Your task to perform on an android device: see sites visited before in the chrome app Image 0: 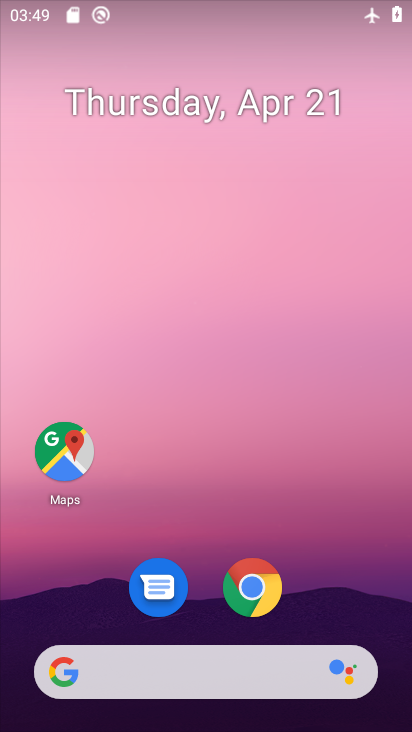
Step 0: drag from (347, 604) to (358, 143)
Your task to perform on an android device: see sites visited before in the chrome app Image 1: 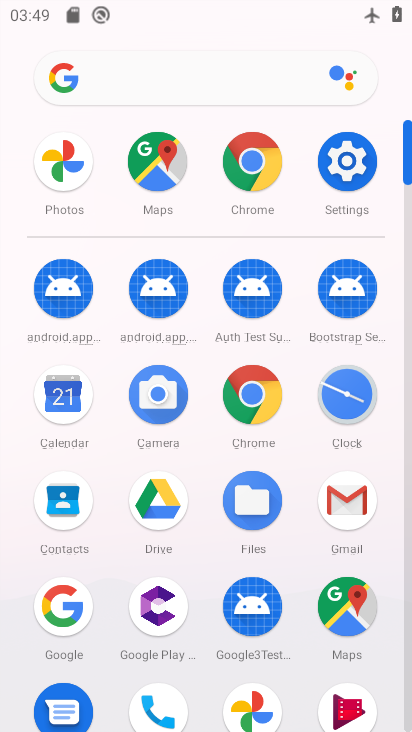
Step 1: click (257, 422)
Your task to perform on an android device: see sites visited before in the chrome app Image 2: 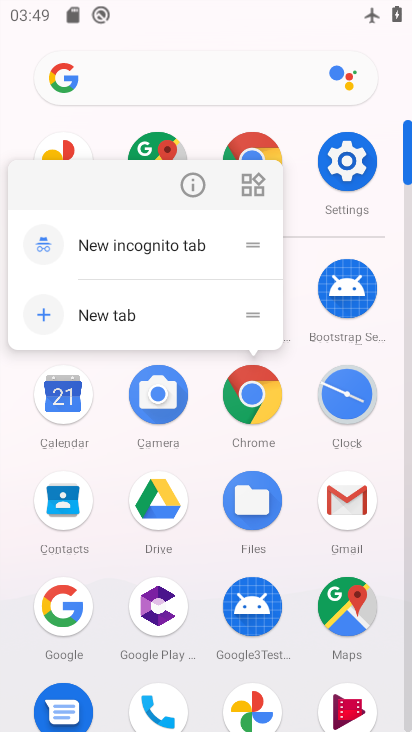
Step 2: click (257, 422)
Your task to perform on an android device: see sites visited before in the chrome app Image 3: 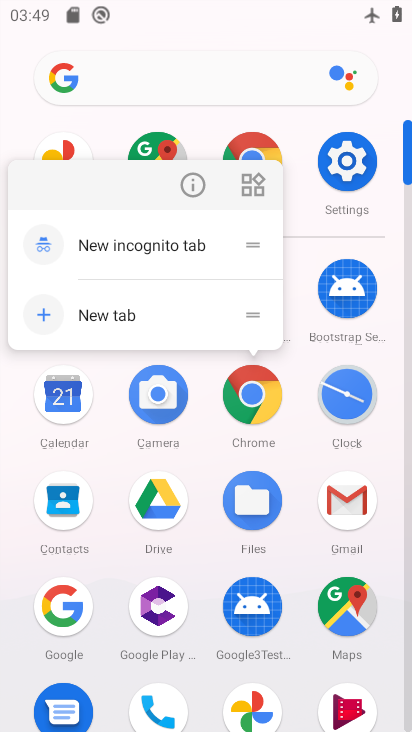
Step 3: click (257, 422)
Your task to perform on an android device: see sites visited before in the chrome app Image 4: 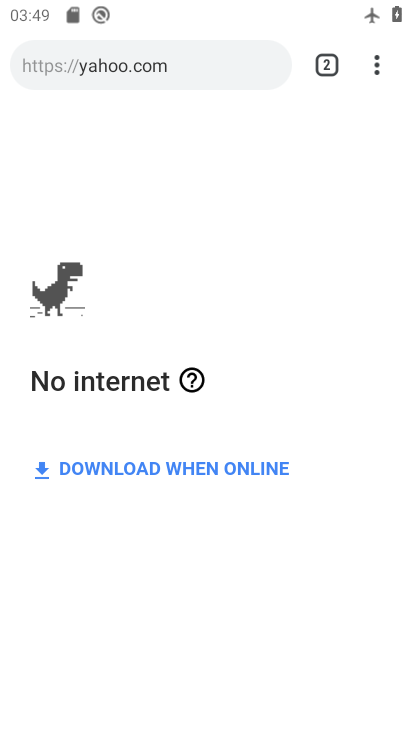
Step 4: click (375, 69)
Your task to perform on an android device: see sites visited before in the chrome app Image 5: 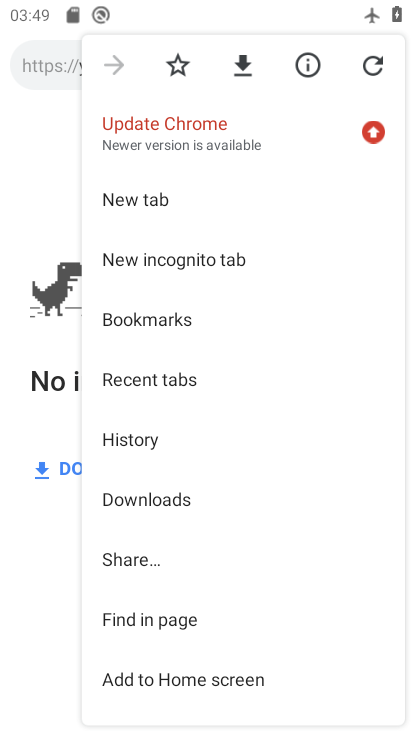
Step 5: click (213, 440)
Your task to perform on an android device: see sites visited before in the chrome app Image 6: 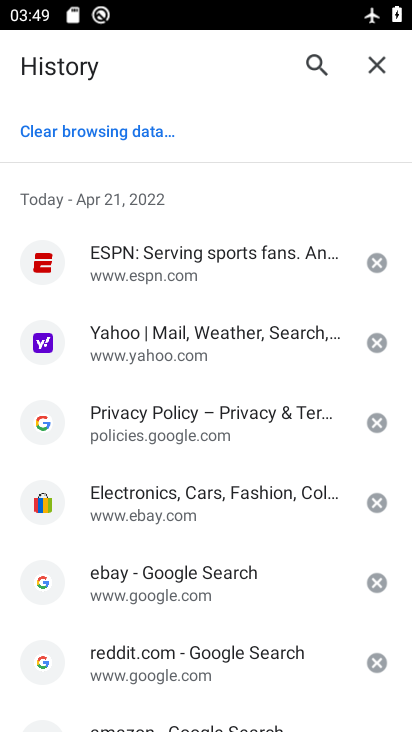
Step 6: task complete